Your task to perform on an android device: change the clock display to show seconds Image 0: 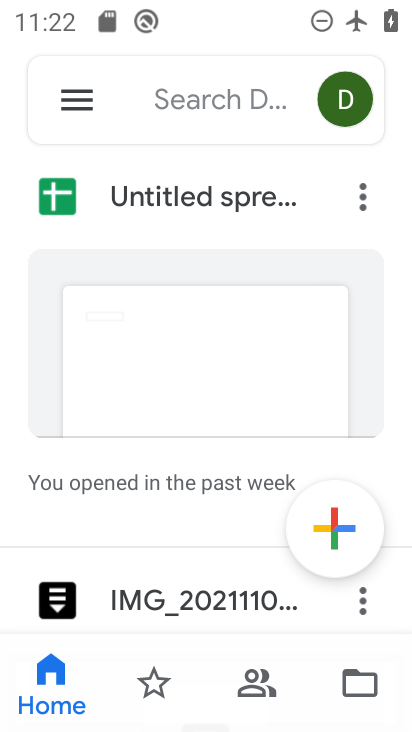
Step 0: press home button
Your task to perform on an android device: change the clock display to show seconds Image 1: 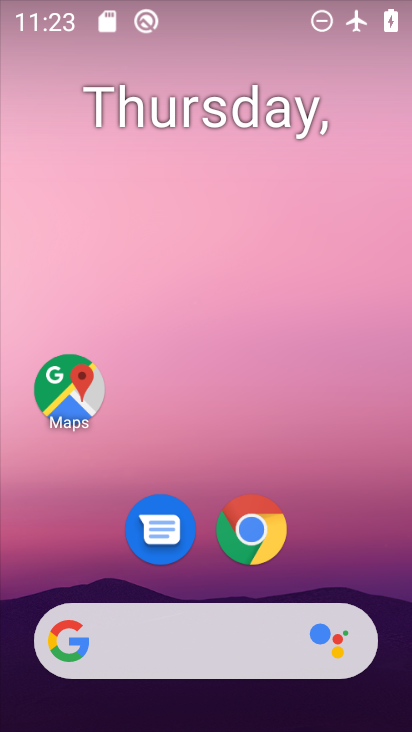
Step 1: drag from (283, 627) to (339, 399)
Your task to perform on an android device: change the clock display to show seconds Image 2: 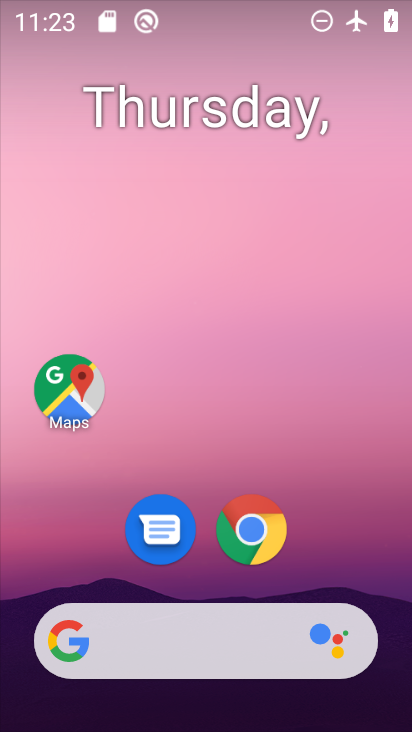
Step 2: drag from (255, 677) to (407, 54)
Your task to perform on an android device: change the clock display to show seconds Image 3: 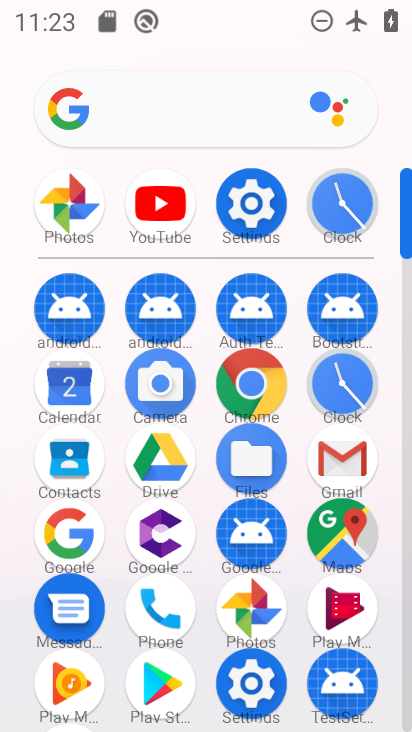
Step 3: click (342, 216)
Your task to perform on an android device: change the clock display to show seconds Image 4: 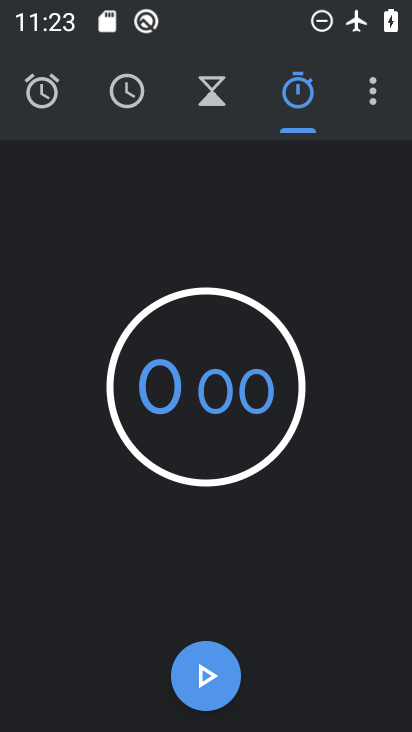
Step 4: click (364, 90)
Your task to perform on an android device: change the clock display to show seconds Image 5: 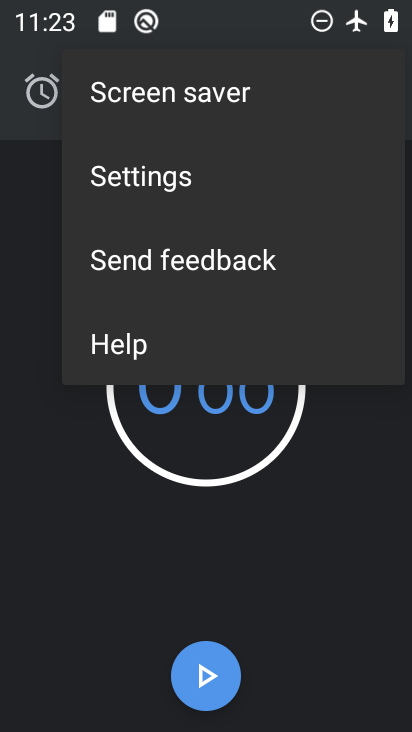
Step 5: click (250, 166)
Your task to perform on an android device: change the clock display to show seconds Image 6: 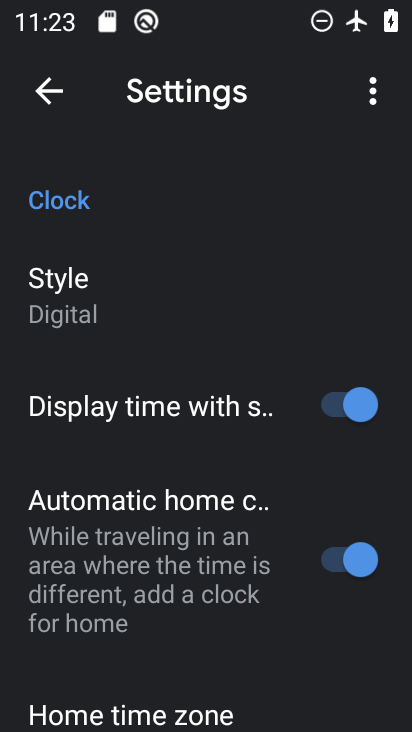
Step 6: task complete